Your task to perform on an android device: change alarm snooze length Image 0: 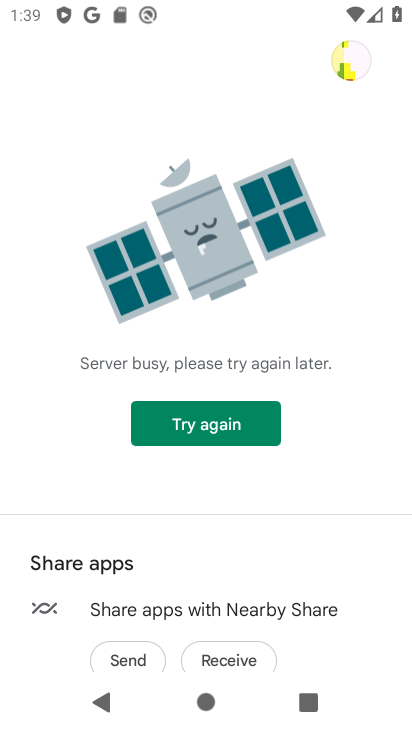
Step 0: press home button
Your task to perform on an android device: change alarm snooze length Image 1: 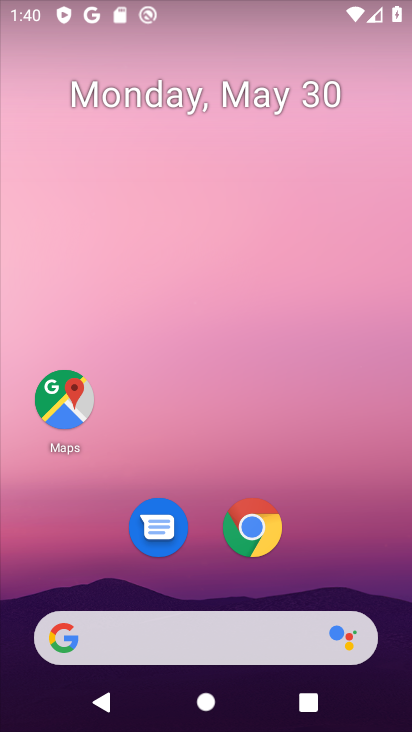
Step 1: drag from (61, 452) to (215, 65)
Your task to perform on an android device: change alarm snooze length Image 2: 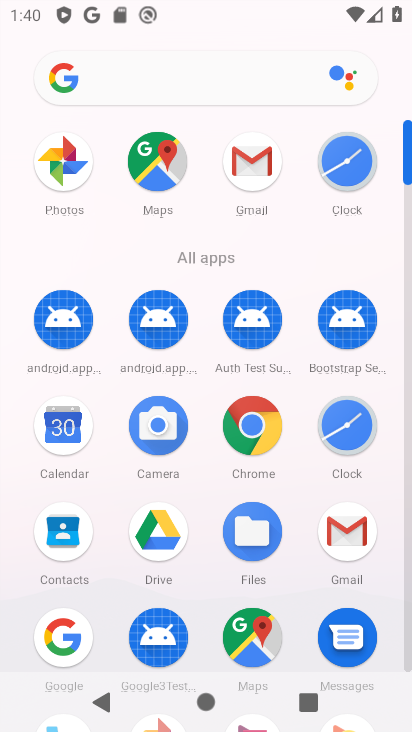
Step 2: click (362, 154)
Your task to perform on an android device: change alarm snooze length Image 3: 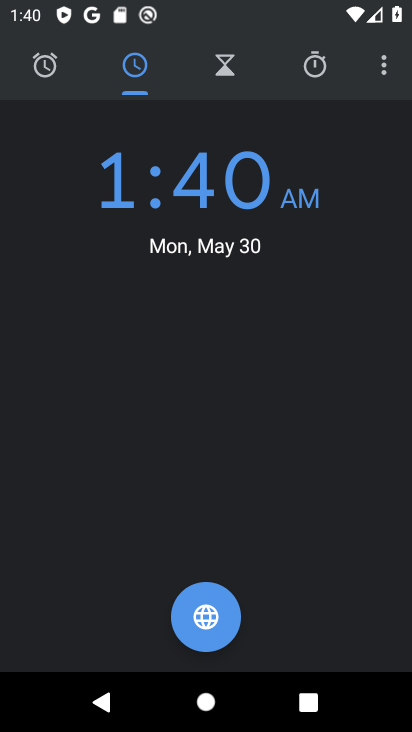
Step 3: click (389, 79)
Your task to perform on an android device: change alarm snooze length Image 4: 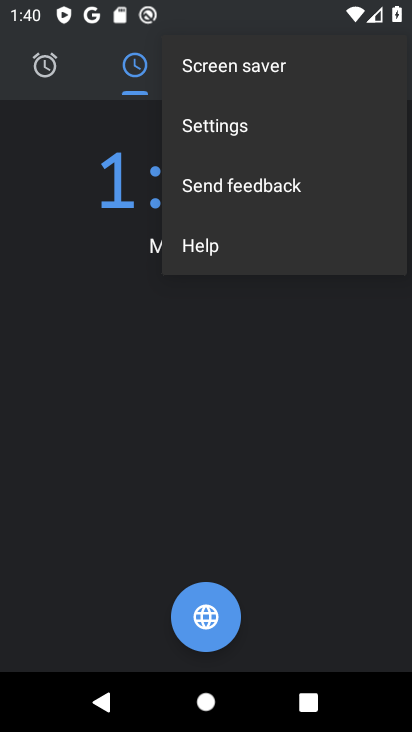
Step 4: click (216, 127)
Your task to perform on an android device: change alarm snooze length Image 5: 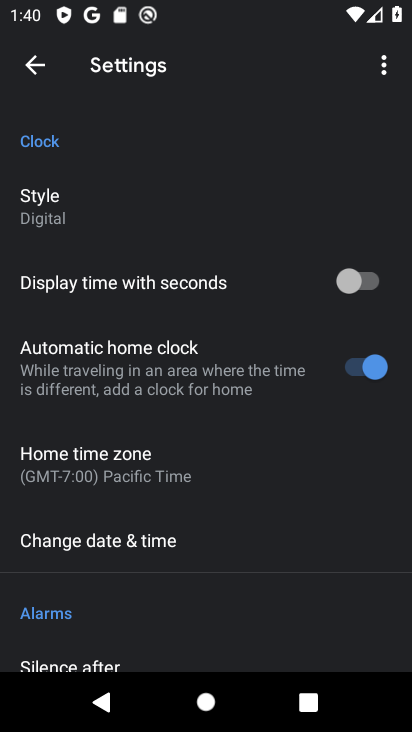
Step 5: drag from (11, 529) to (229, 198)
Your task to perform on an android device: change alarm snooze length Image 6: 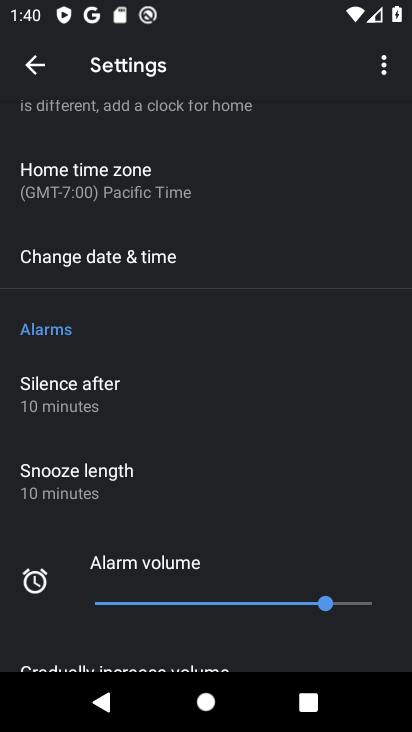
Step 6: click (130, 473)
Your task to perform on an android device: change alarm snooze length Image 7: 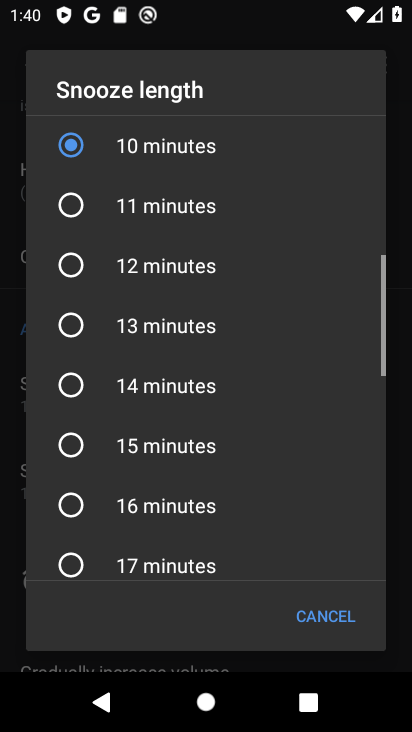
Step 7: click (130, 209)
Your task to perform on an android device: change alarm snooze length Image 8: 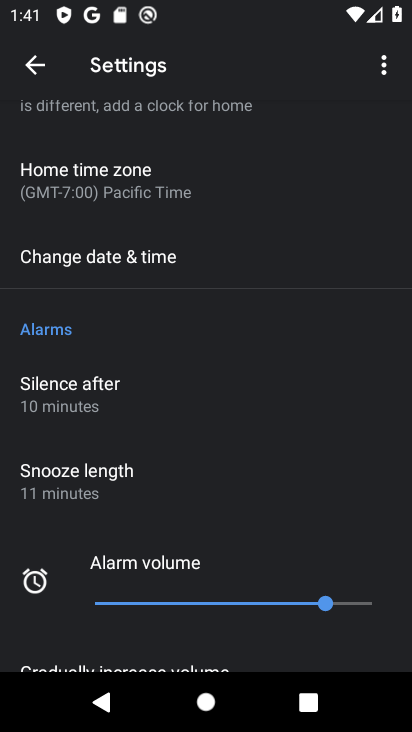
Step 8: task complete